Your task to perform on an android device: add a contact Image 0: 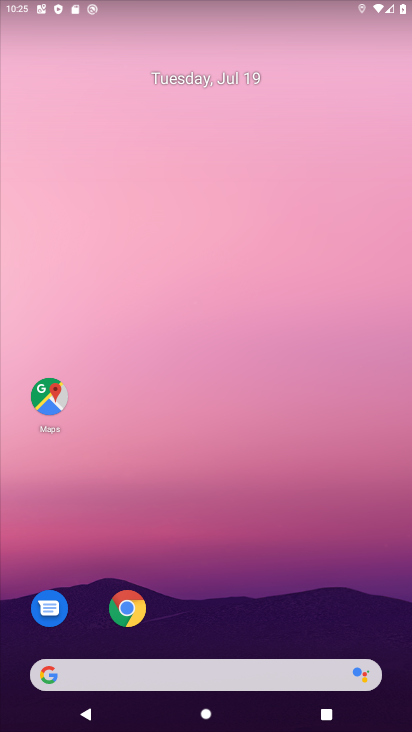
Step 0: drag from (219, 622) to (149, 153)
Your task to perform on an android device: add a contact Image 1: 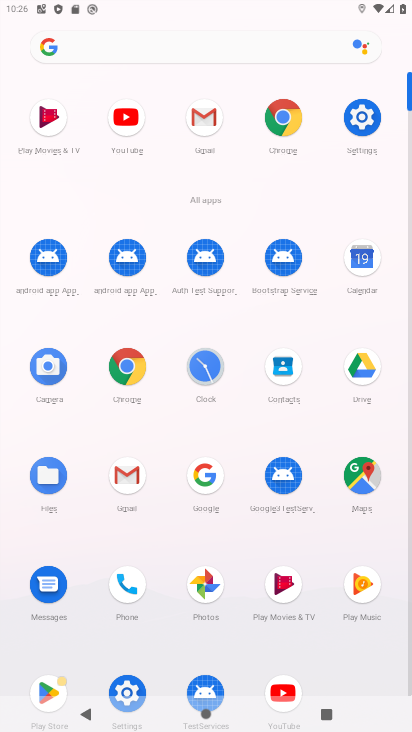
Step 1: click (138, 588)
Your task to perform on an android device: add a contact Image 2: 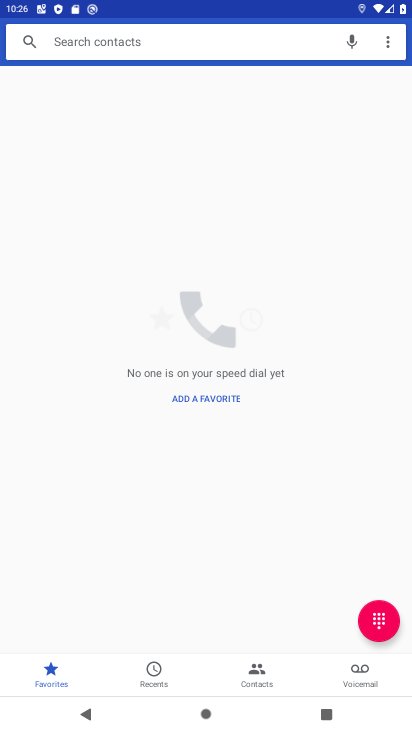
Step 2: click (265, 669)
Your task to perform on an android device: add a contact Image 3: 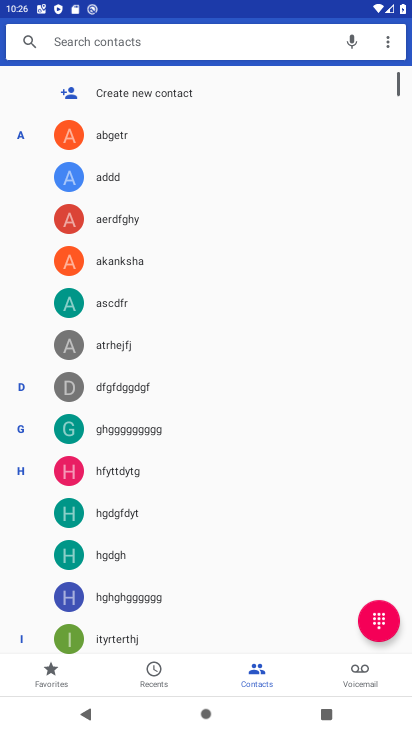
Step 3: click (89, 95)
Your task to perform on an android device: add a contact Image 4: 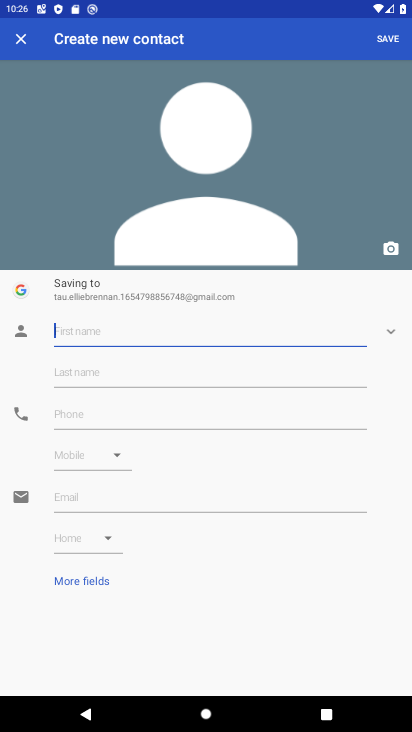
Step 4: type "mccc"
Your task to perform on an android device: add a contact Image 5: 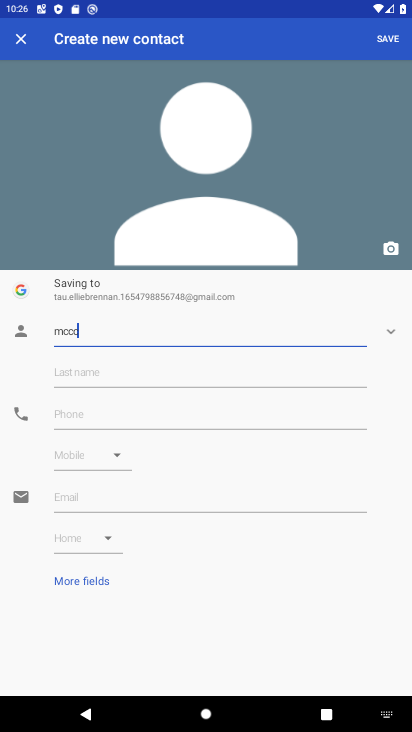
Step 5: click (233, 423)
Your task to perform on an android device: add a contact Image 6: 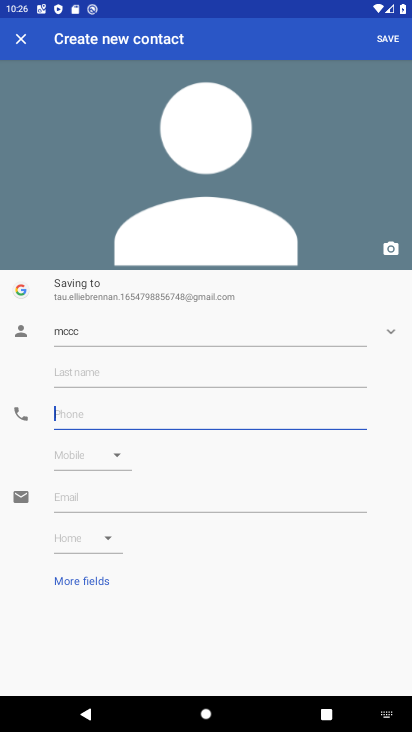
Step 6: type "432"
Your task to perform on an android device: add a contact Image 7: 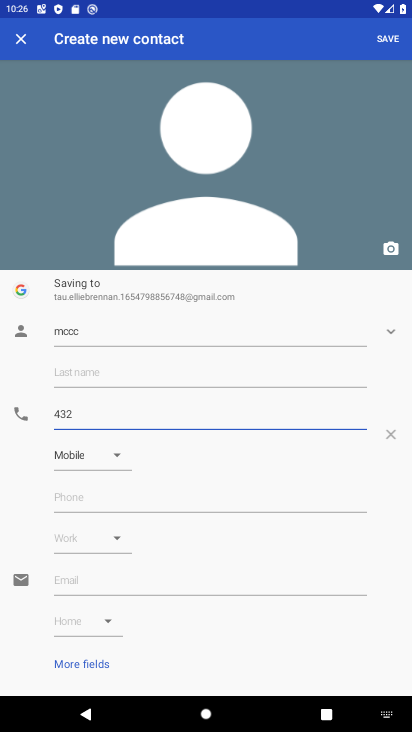
Step 7: click (385, 44)
Your task to perform on an android device: add a contact Image 8: 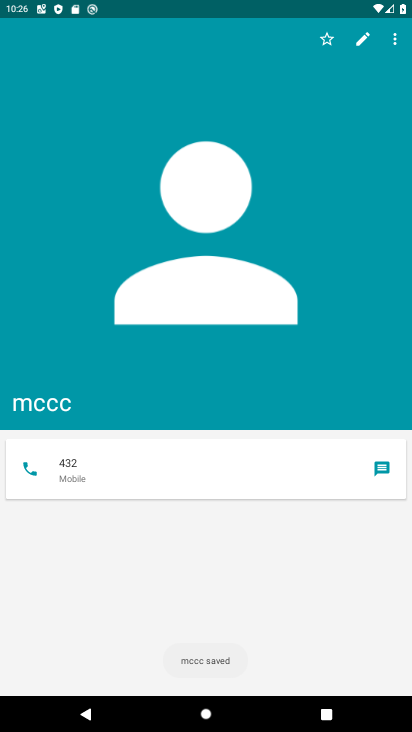
Step 8: task complete